Your task to perform on an android device: turn off improve location accuracy Image 0: 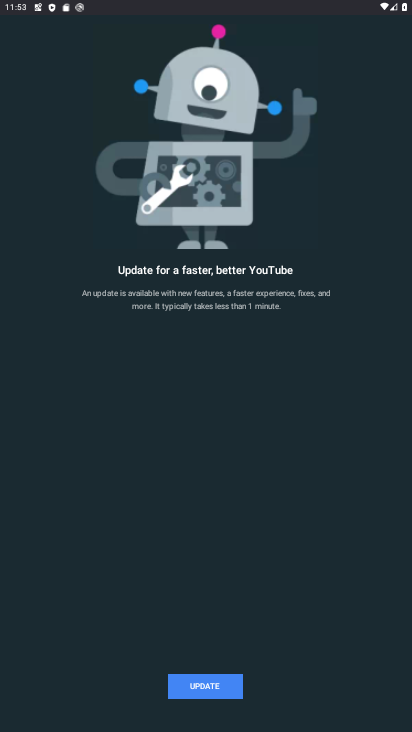
Step 0: press home button
Your task to perform on an android device: turn off improve location accuracy Image 1: 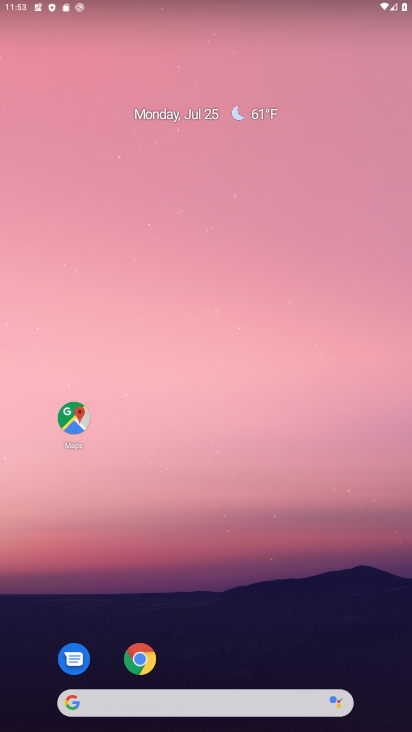
Step 1: drag from (184, 688) to (187, 121)
Your task to perform on an android device: turn off improve location accuracy Image 2: 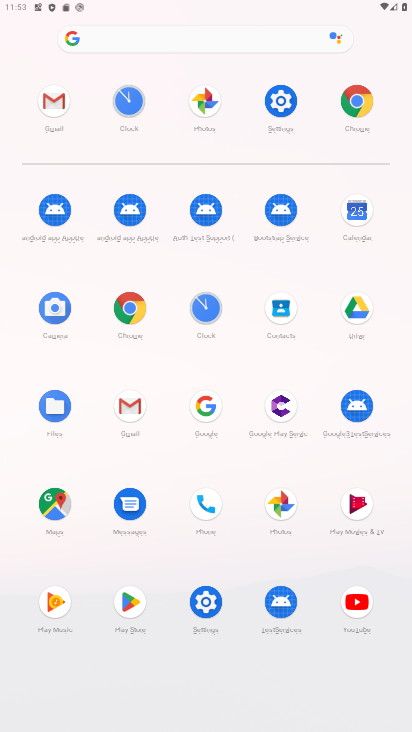
Step 2: click (280, 100)
Your task to perform on an android device: turn off improve location accuracy Image 3: 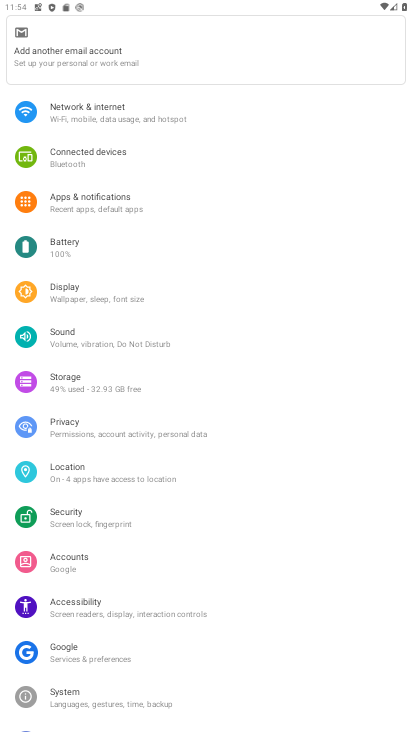
Step 3: click (71, 471)
Your task to perform on an android device: turn off improve location accuracy Image 4: 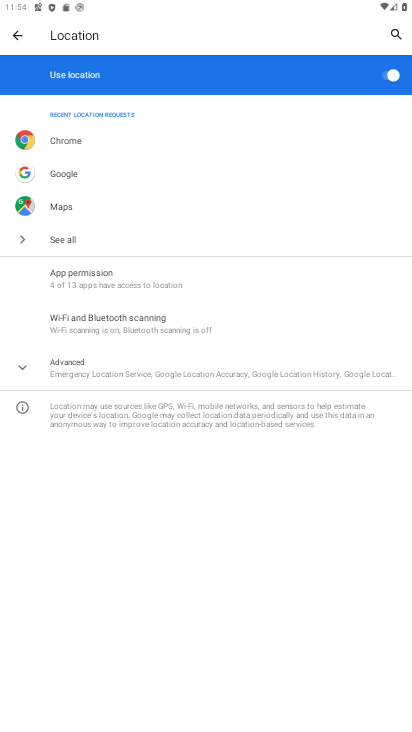
Step 4: click (77, 367)
Your task to perform on an android device: turn off improve location accuracy Image 5: 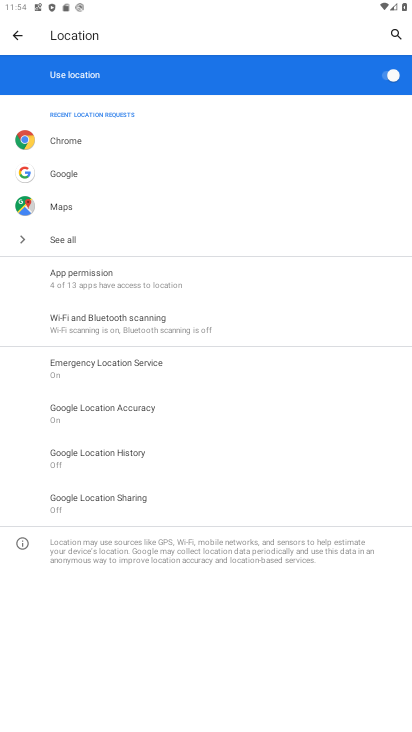
Step 5: click (133, 408)
Your task to perform on an android device: turn off improve location accuracy Image 6: 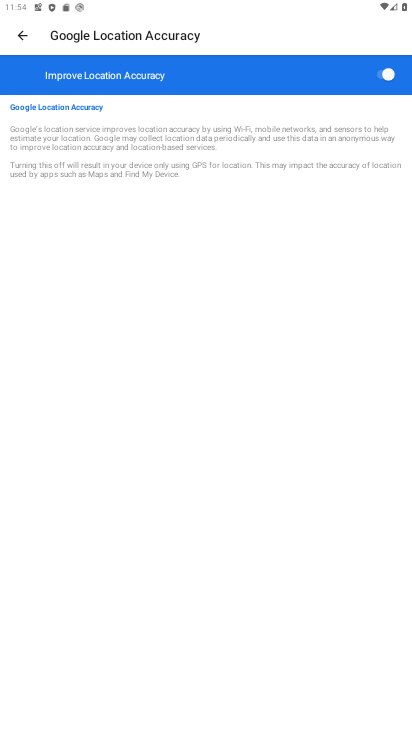
Step 6: click (391, 73)
Your task to perform on an android device: turn off improve location accuracy Image 7: 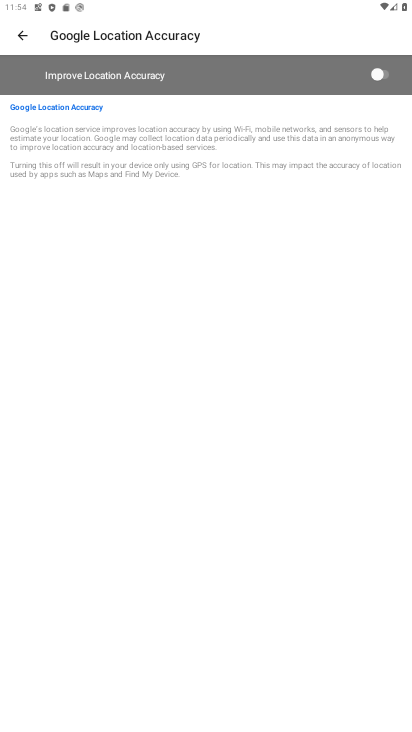
Step 7: task complete